Your task to perform on an android device: Open the contacts Image 0: 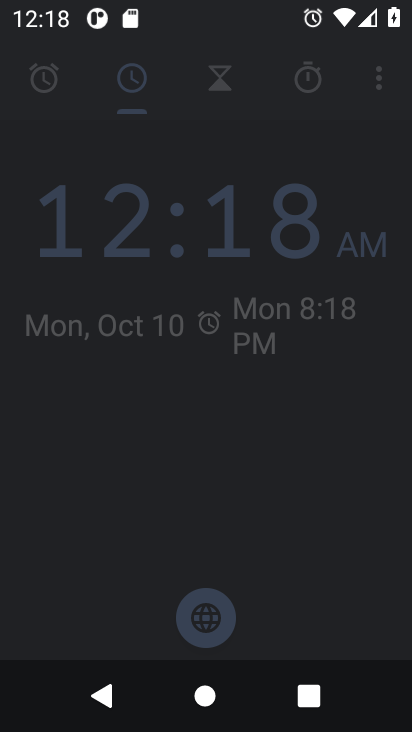
Step 0: drag from (218, 553) to (198, 89)
Your task to perform on an android device: Open the contacts Image 1: 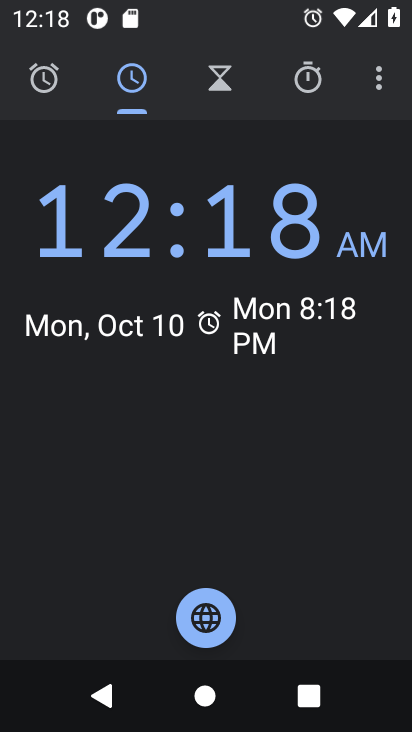
Step 1: press home button
Your task to perform on an android device: Open the contacts Image 2: 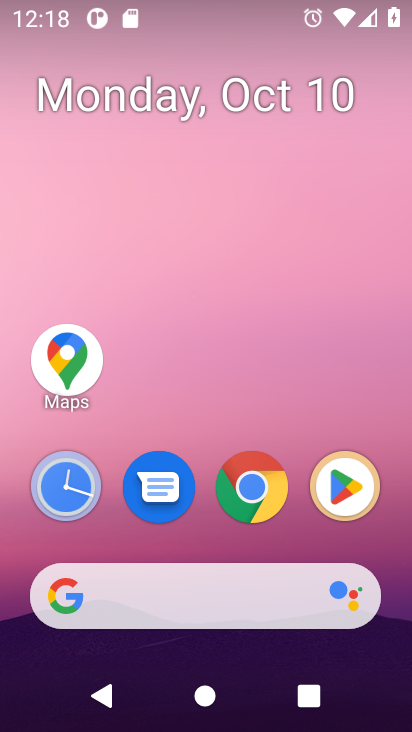
Step 2: drag from (203, 548) to (159, 41)
Your task to perform on an android device: Open the contacts Image 3: 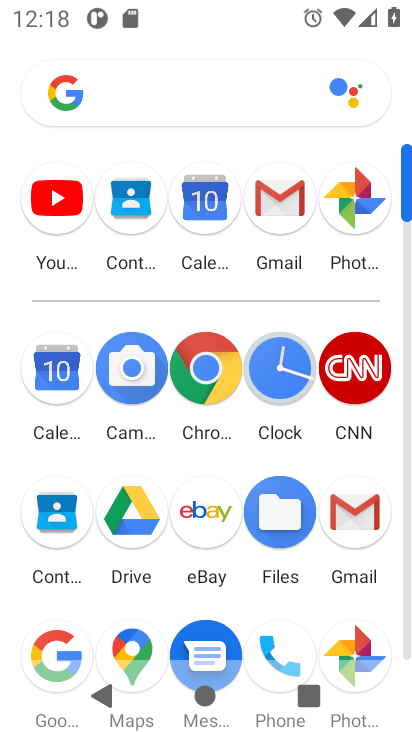
Step 3: click (49, 517)
Your task to perform on an android device: Open the contacts Image 4: 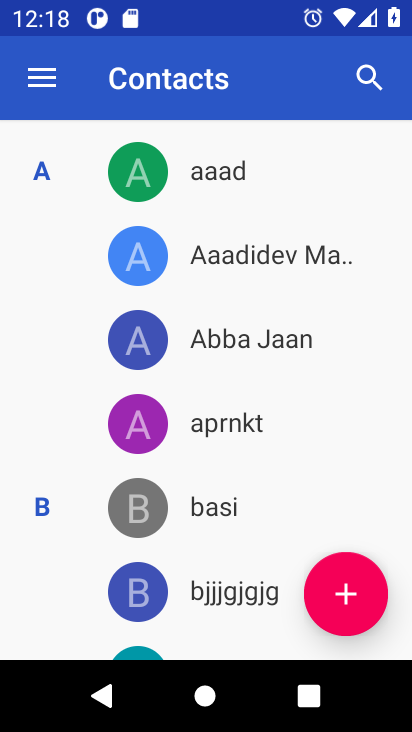
Step 4: task complete